Your task to perform on an android device: Play the last video I watched on Youtube Image 0: 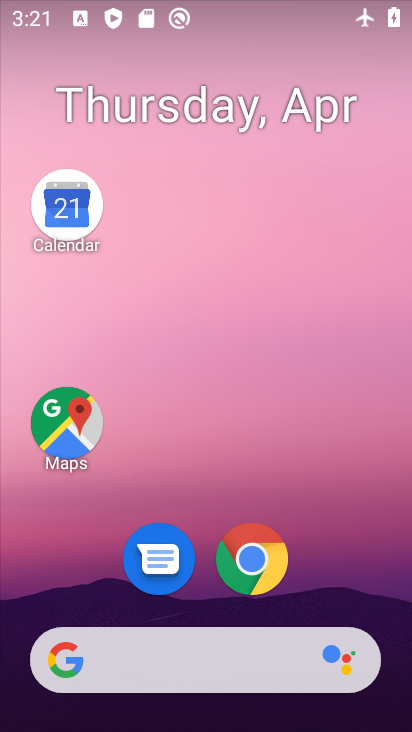
Step 0: drag from (295, 611) to (329, 146)
Your task to perform on an android device: Play the last video I watched on Youtube Image 1: 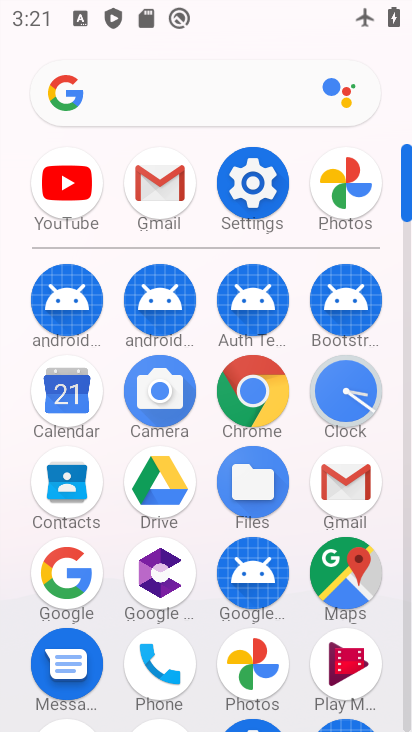
Step 1: click (68, 185)
Your task to perform on an android device: Play the last video I watched on Youtube Image 2: 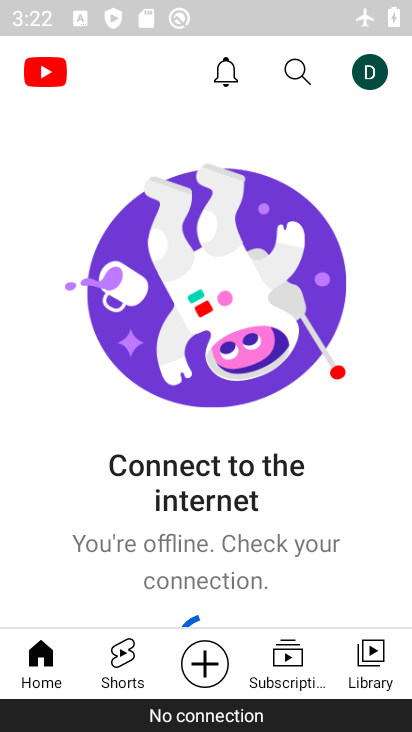
Step 2: click (353, 661)
Your task to perform on an android device: Play the last video I watched on Youtube Image 3: 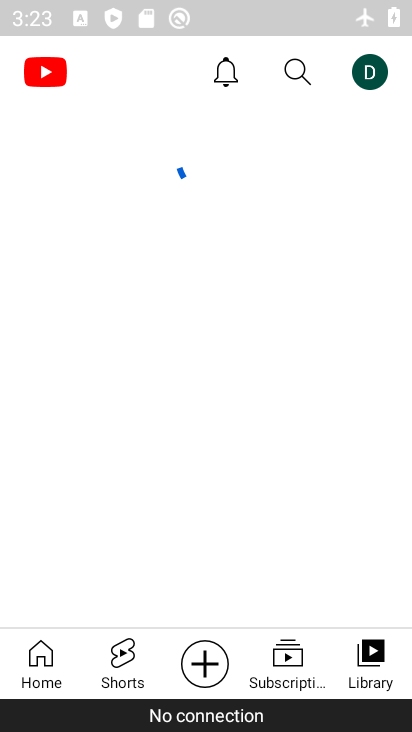
Step 3: task complete